Your task to perform on an android device: change text size in settings app Image 0: 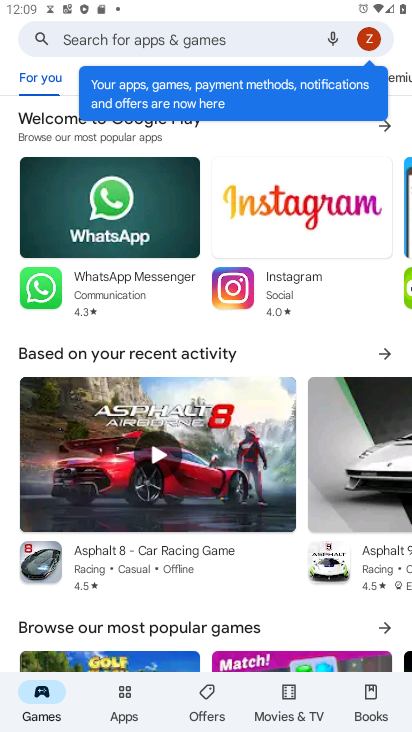
Step 0: press home button
Your task to perform on an android device: change text size in settings app Image 1: 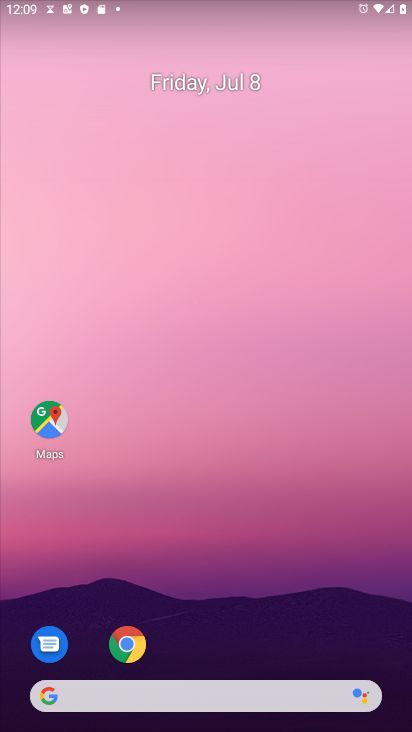
Step 1: drag from (218, 641) to (344, 20)
Your task to perform on an android device: change text size in settings app Image 2: 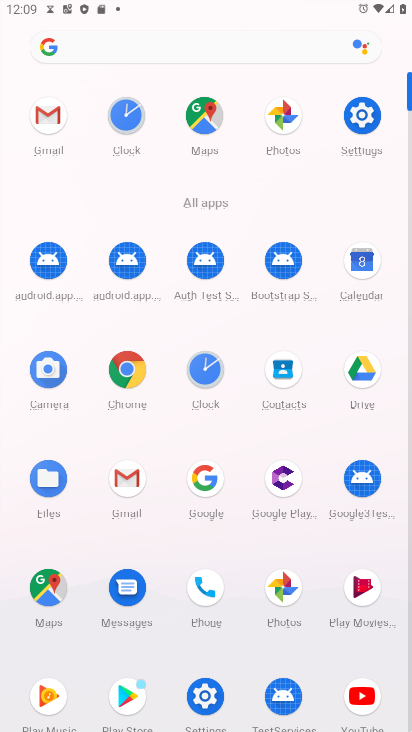
Step 2: click (206, 694)
Your task to perform on an android device: change text size in settings app Image 3: 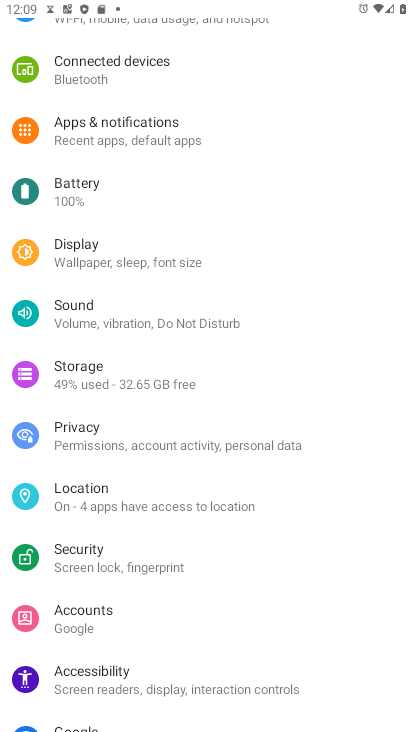
Step 3: click (108, 258)
Your task to perform on an android device: change text size in settings app Image 4: 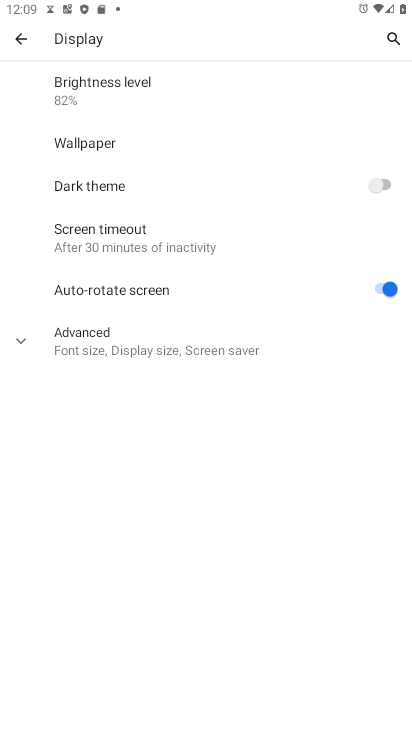
Step 4: click (98, 362)
Your task to perform on an android device: change text size in settings app Image 5: 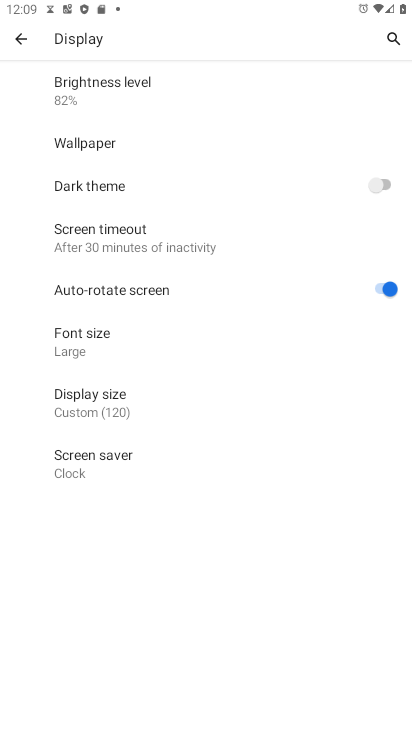
Step 5: click (113, 346)
Your task to perform on an android device: change text size in settings app Image 6: 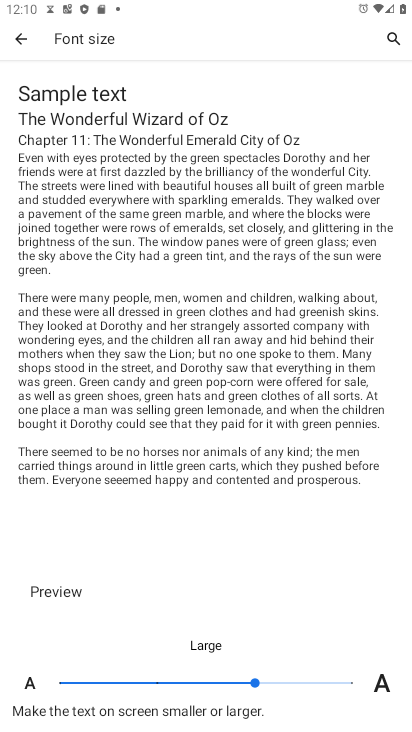
Step 6: click (353, 682)
Your task to perform on an android device: change text size in settings app Image 7: 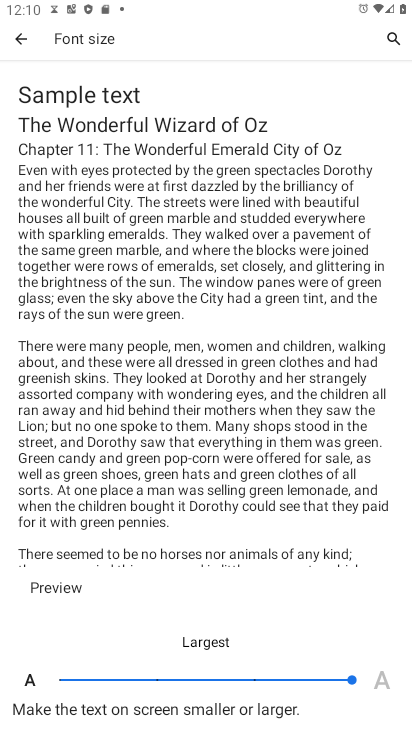
Step 7: task complete